Your task to perform on an android device: Open Google Chrome Image 0: 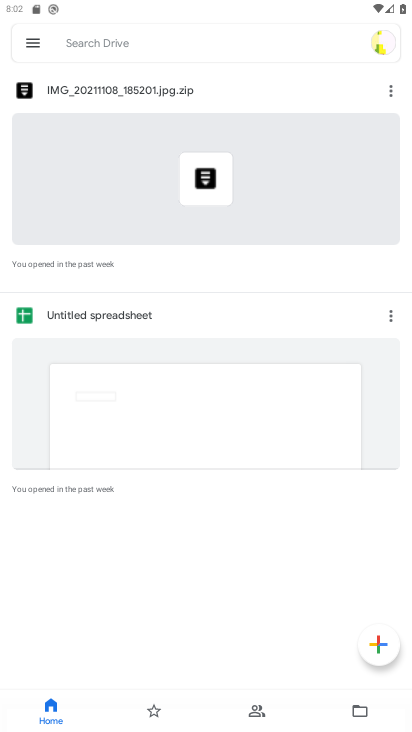
Step 0: press home button
Your task to perform on an android device: Open Google Chrome Image 1: 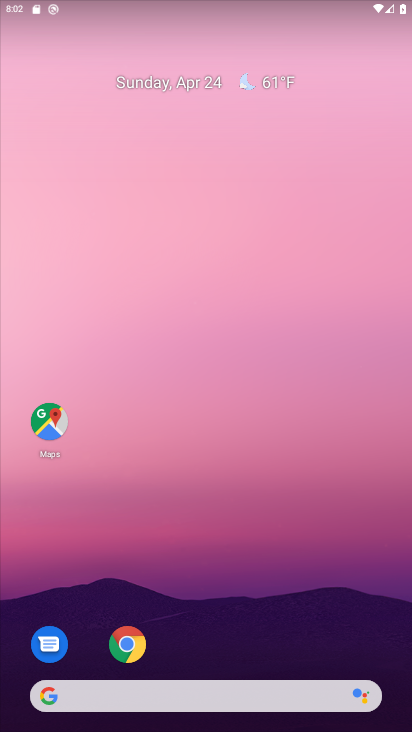
Step 1: drag from (234, 566) to (196, 4)
Your task to perform on an android device: Open Google Chrome Image 2: 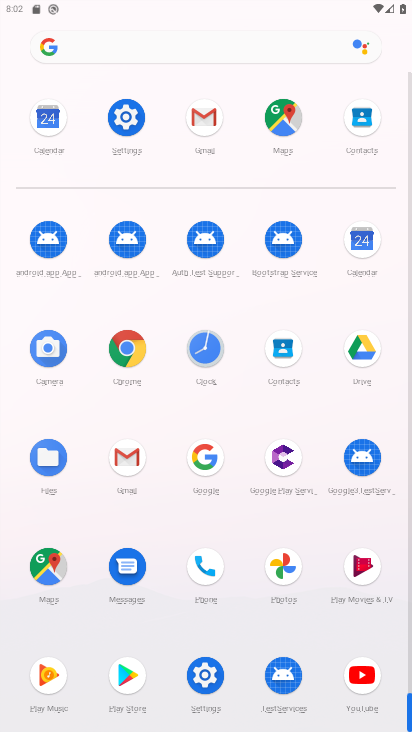
Step 2: click (125, 343)
Your task to perform on an android device: Open Google Chrome Image 3: 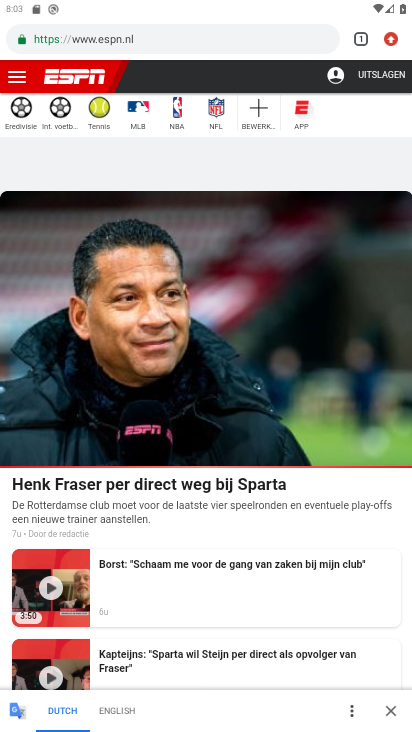
Step 3: click (389, 38)
Your task to perform on an android device: Open Google Chrome Image 4: 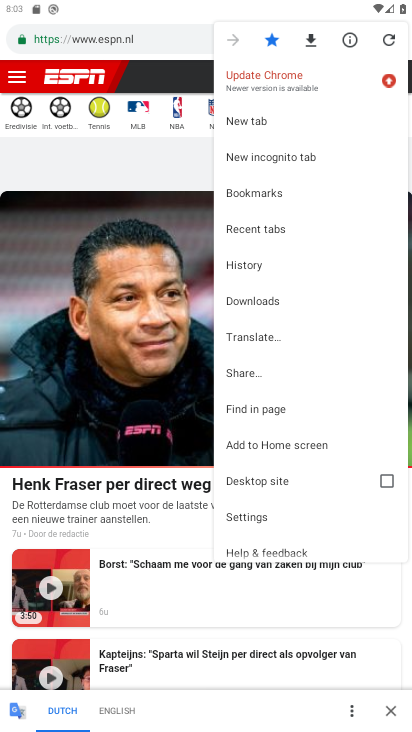
Step 4: click (105, 344)
Your task to perform on an android device: Open Google Chrome Image 5: 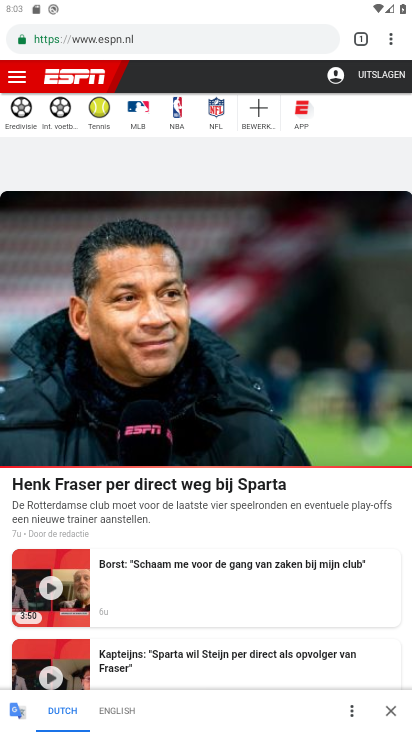
Step 5: task complete